Your task to perform on an android device: What's on my calendar today? Image 0: 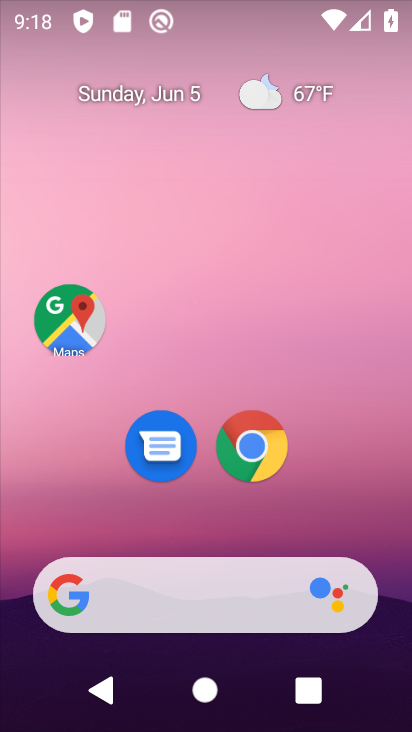
Step 0: drag from (206, 501) to (208, 116)
Your task to perform on an android device: What's on my calendar today? Image 1: 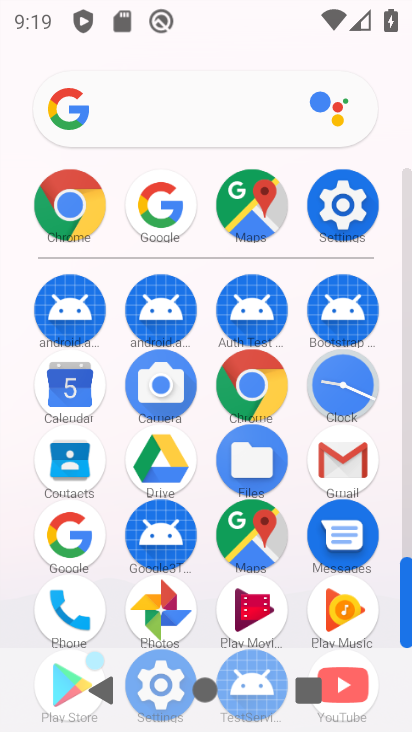
Step 1: click (79, 383)
Your task to perform on an android device: What's on my calendar today? Image 2: 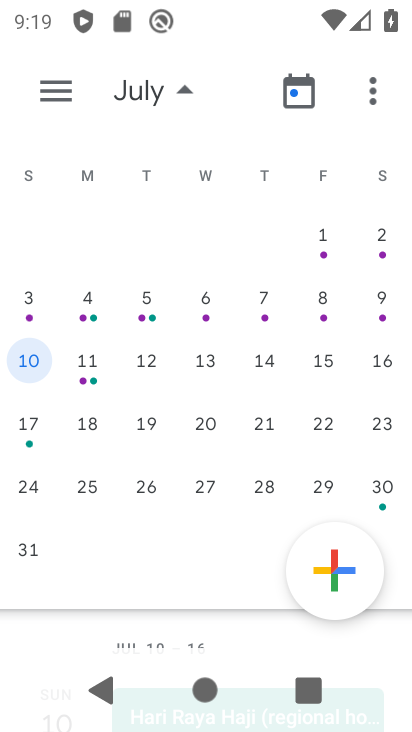
Step 2: drag from (60, 379) to (381, 432)
Your task to perform on an android device: What's on my calendar today? Image 3: 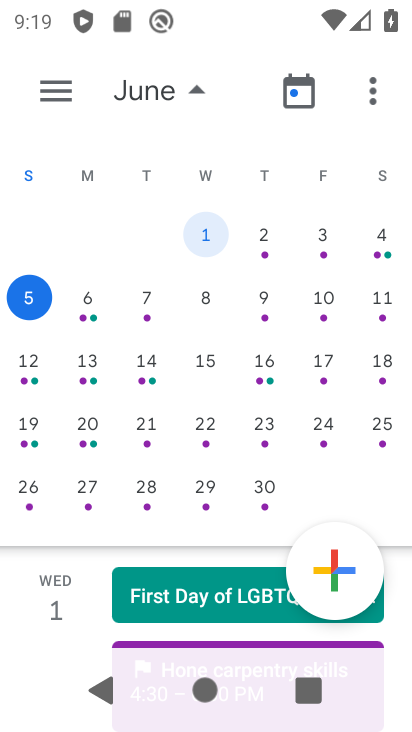
Step 3: click (34, 299)
Your task to perform on an android device: What's on my calendar today? Image 4: 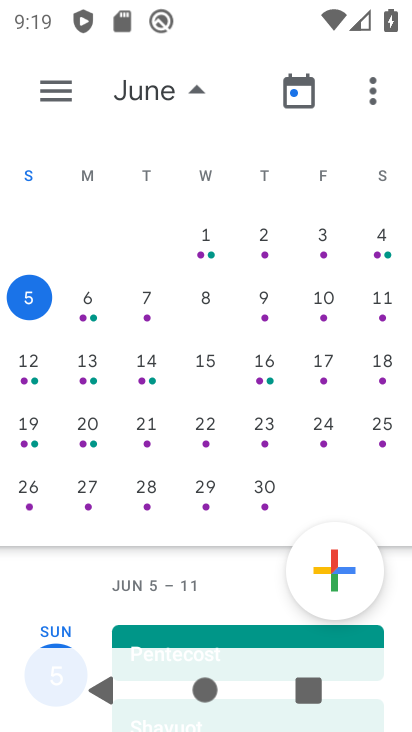
Step 4: task complete